Your task to perform on an android device: What's the weather? Image 0: 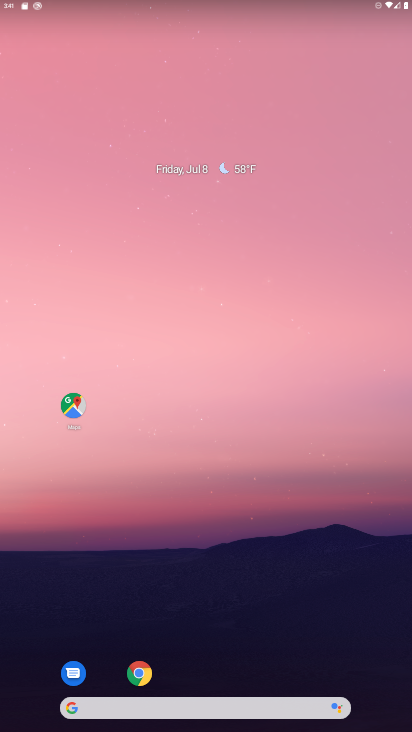
Step 0: drag from (227, 691) to (227, 293)
Your task to perform on an android device: What's the weather? Image 1: 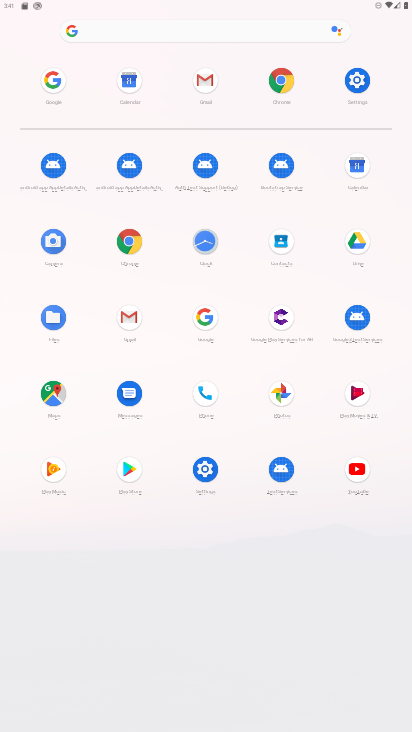
Step 1: click (203, 316)
Your task to perform on an android device: What's the weather? Image 2: 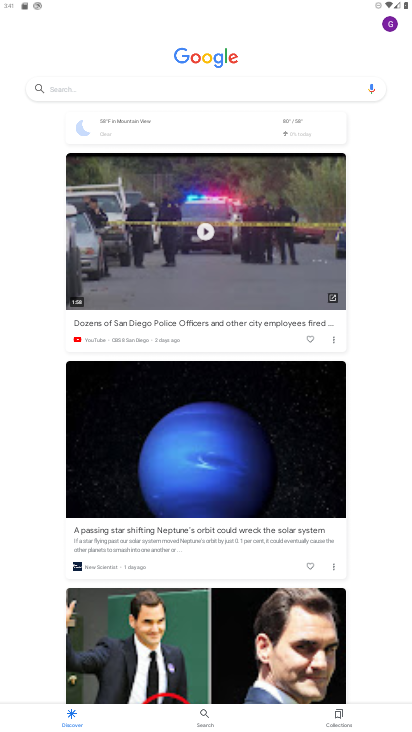
Step 2: click (150, 117)
Your task to perform on an android device: What's the weather? Image 3: 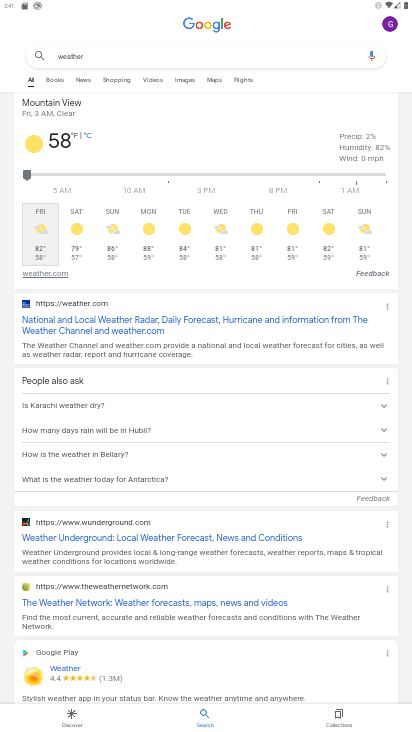
Step 3: task complete